Your task to perform on an android device: Open notification settings Image 0: 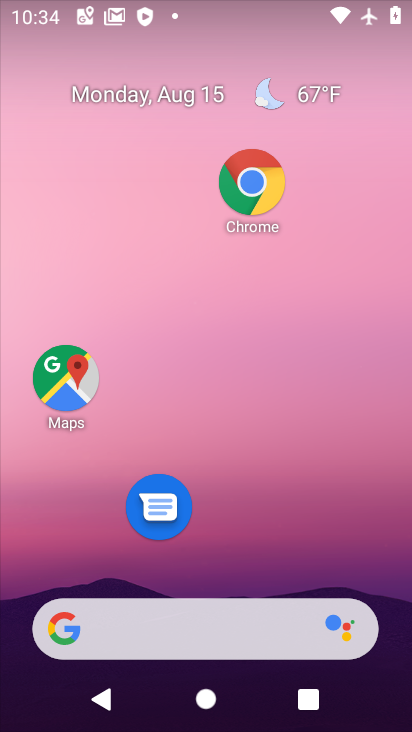
Step 0: drag from (296, 571) to (278, 8)
Your task to perform on an android device: Open notification settings Image 1: 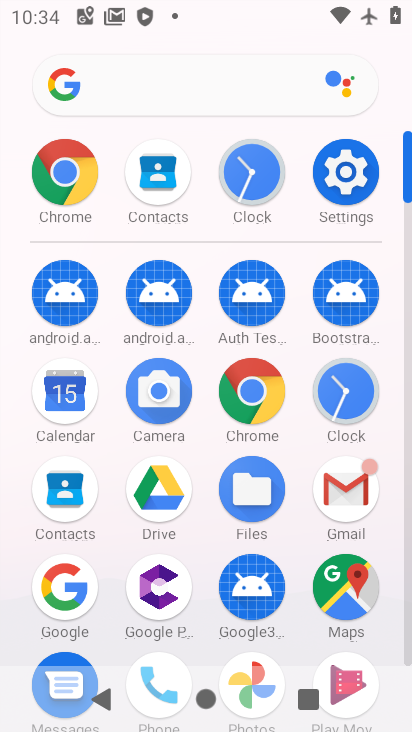
Step 1: click (357, 166)
Your task to perform on an android device: Open notification settings Image 2: 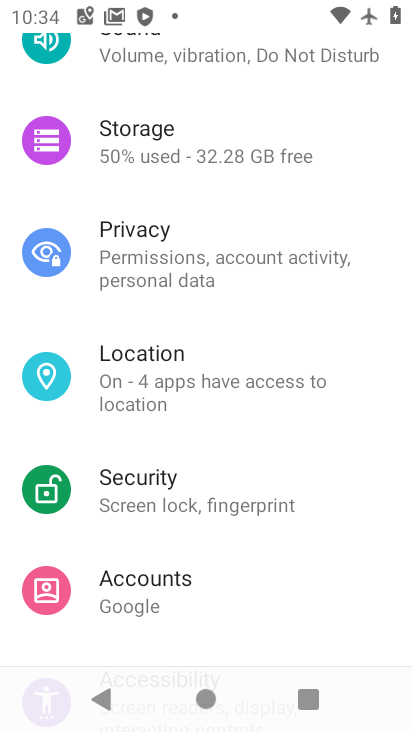
Step 2: drag from (294, 417) to (321, 629)
Your task to perform on an android device: Open notification settings Image 3: 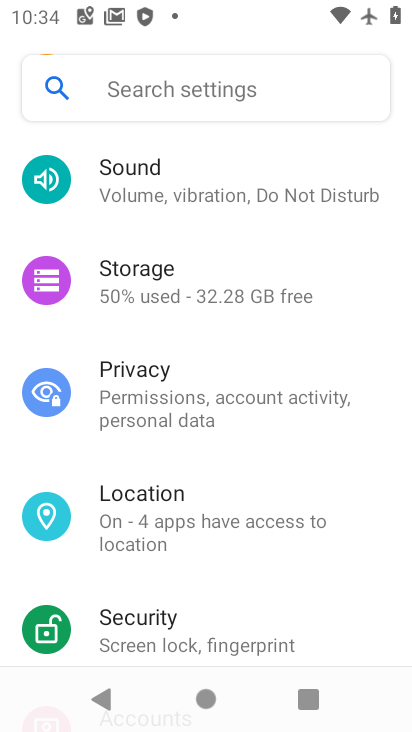
Step 3: drag from (257, 381) to (263, 509)
Your task to perform on an android device: Open notification settings Image 4: 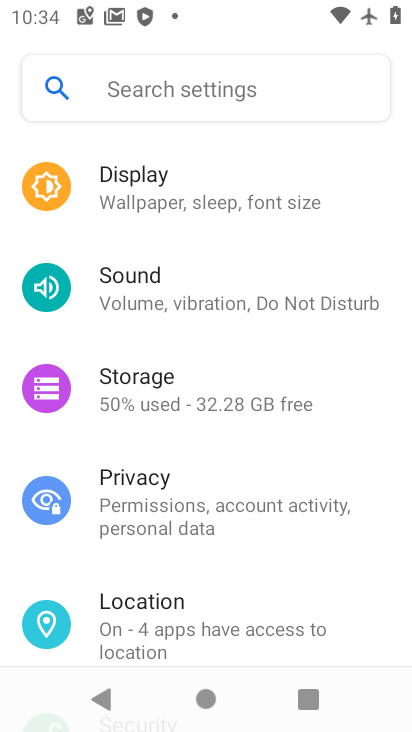
Step 4: drag from (241, 446) to (244, 551)
Your task to perform on an android device: Open notification settings Image 5: 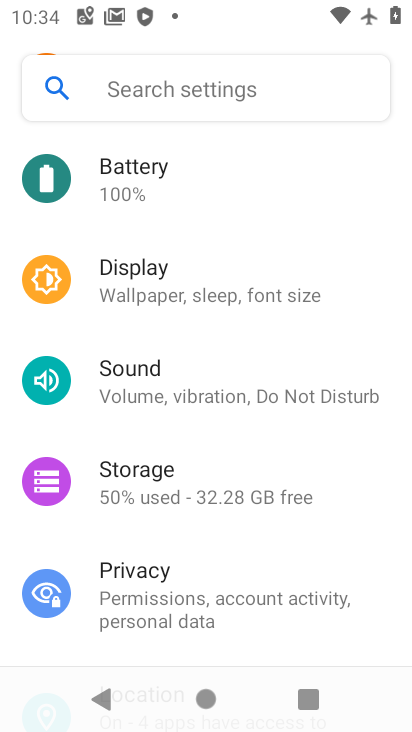
Step 5: drag from (194, 292) to (219, 447)
Your task to perform on an android device: Open notification settings Image 6: 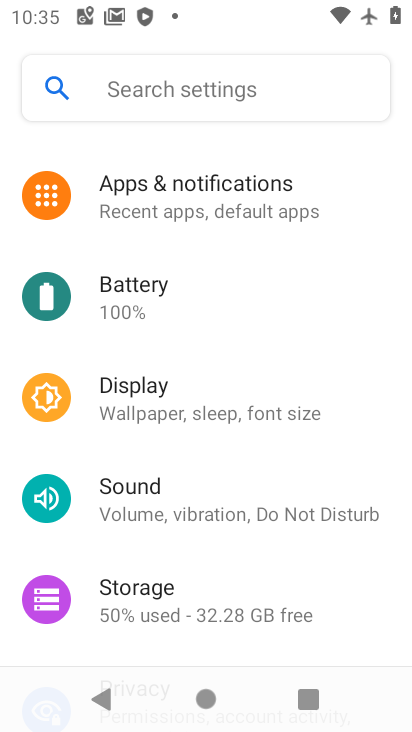
Step 6: click (244, 174)
Your task to perform on an android device: Open notification settings Image 7: 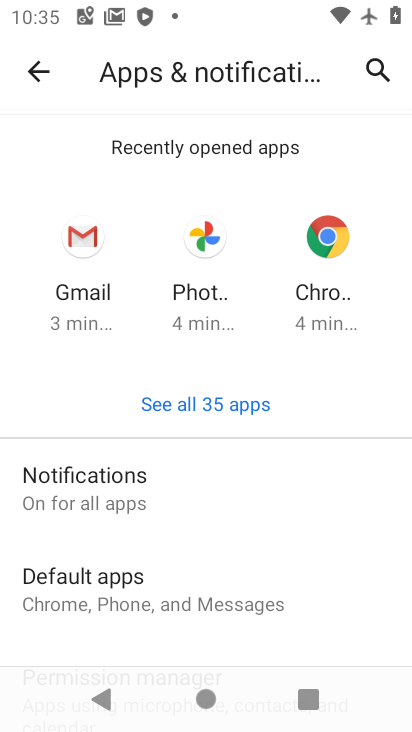
Step 7: task complete